Your task to perform on an android device: Is it going to rain this weekend? Image 0: 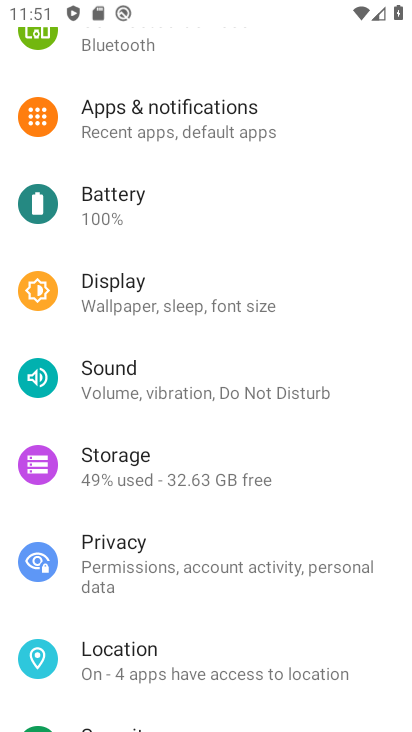
Step 0: press back button
Your task to perform on an android device: Is it going to rain this weekend? Image 1: 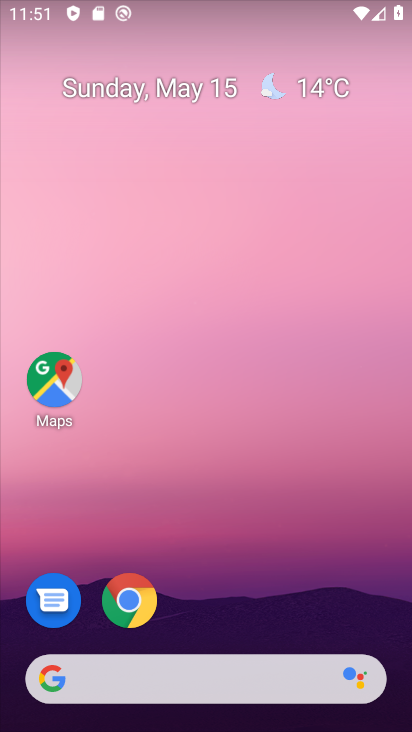
Step 1: drag from (276, 573) to (243, 10)
Your task to perform on an android device: Is it going to rain this weekend? Image 2: 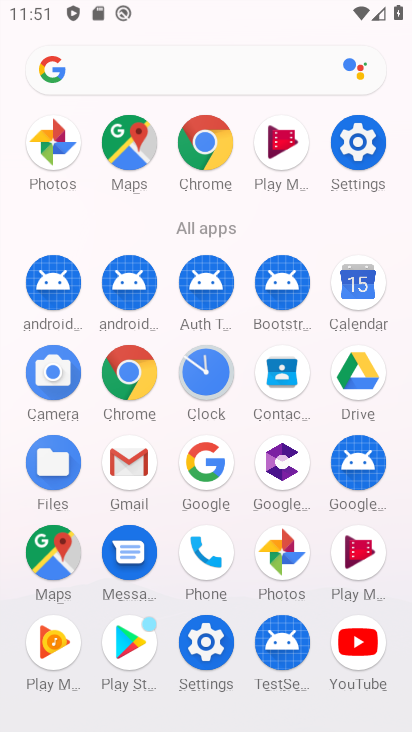
Step 2: click (122, 363)
Your task to perform on an android device: Is it going to rain this weekend? Image 3: 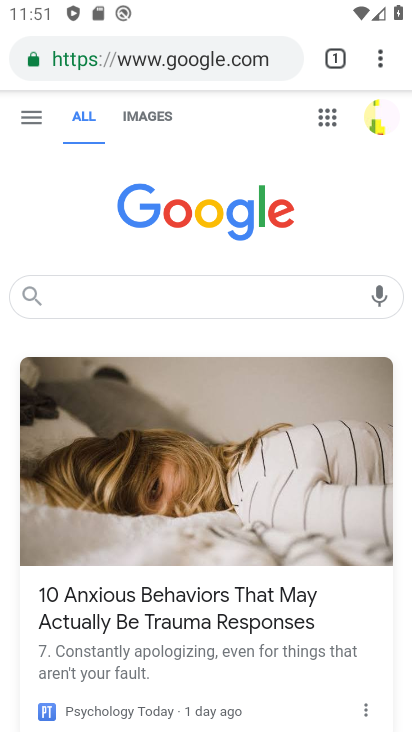
Step 3: click (172, 55)
Your task to perform on an android device: Is it going to rain this weekend? Image 4: 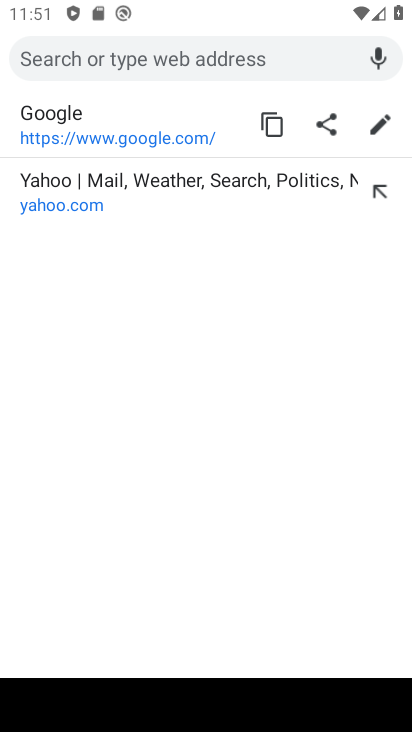
Step 4: type "Is it going to rain this weekend?"
Your task to perform on an android device: Is it going to rain this weekend? Image 5: 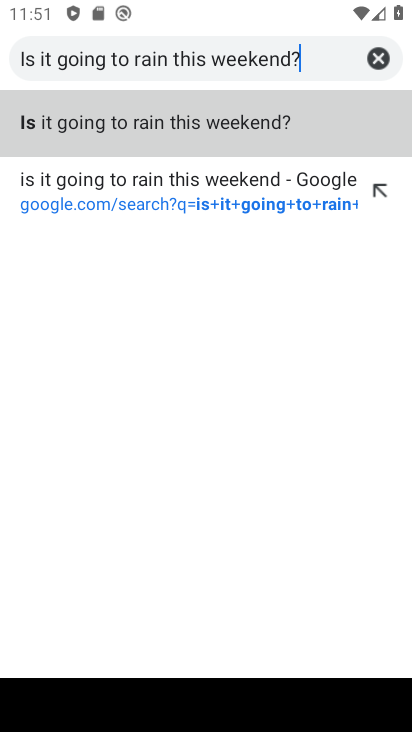
Step 5: type ""
Your task to perform on an android device: Is it going to rain this weekend? Image 6: 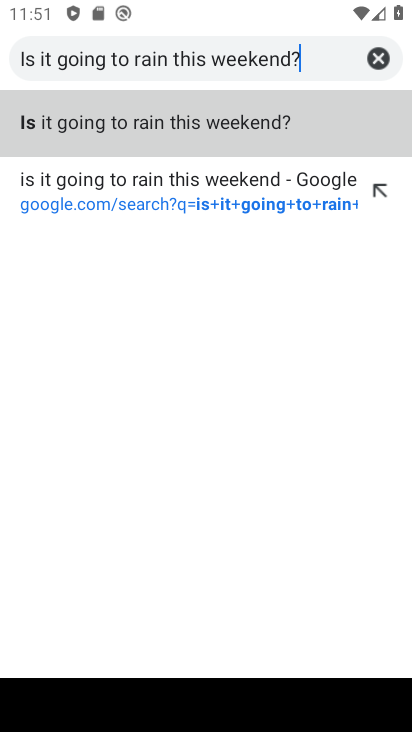
Step 6: click (209, 132)
Your task to perform on an android device: Is it going to rain this weekend? Image 7: 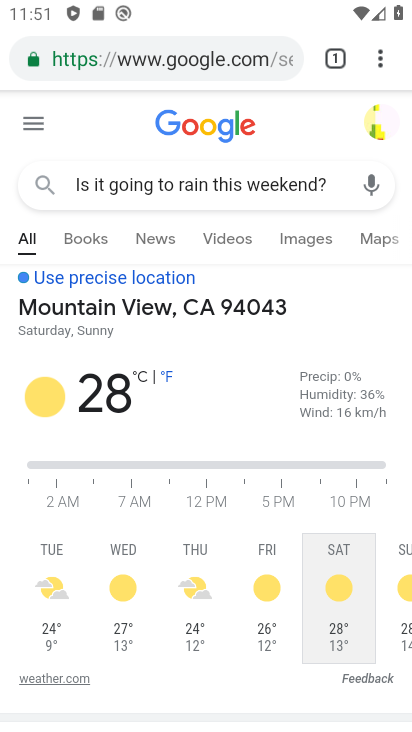
Step 7: task complete